Your task to perform on an android device: set the timer Image 0: 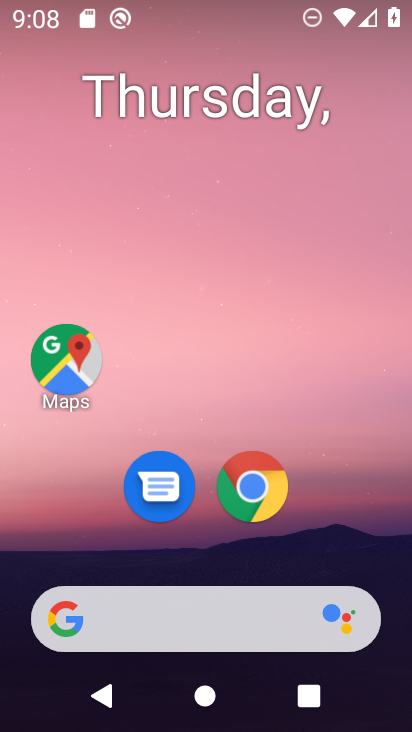
Step 0: drag from (228, 386) to (277, 6)
Your task to perform on an android device: set the timer Image 1: 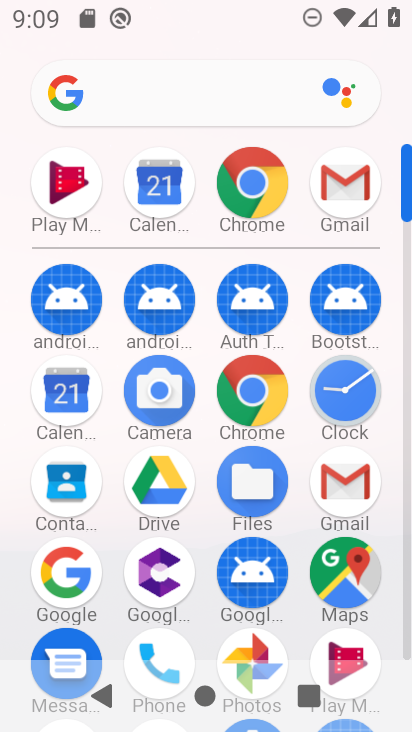
Step 1: click (336, 385)
Your task to perform on an android device: set the timer Image 2: 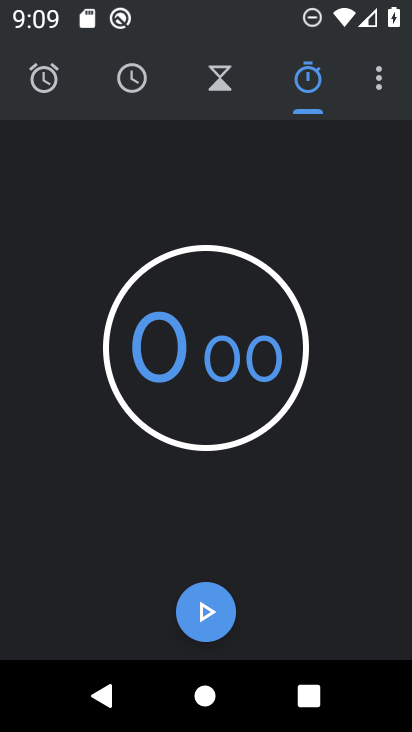
Step 2: click (3, 714)
Your task to perform on an android device: set the timer Image 3: 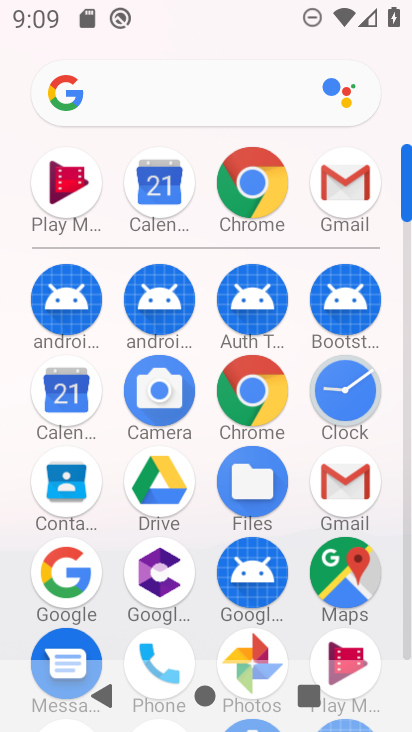
Step 3: click (344, 397)
Your task to perform on an android device: set the timer Image 4: 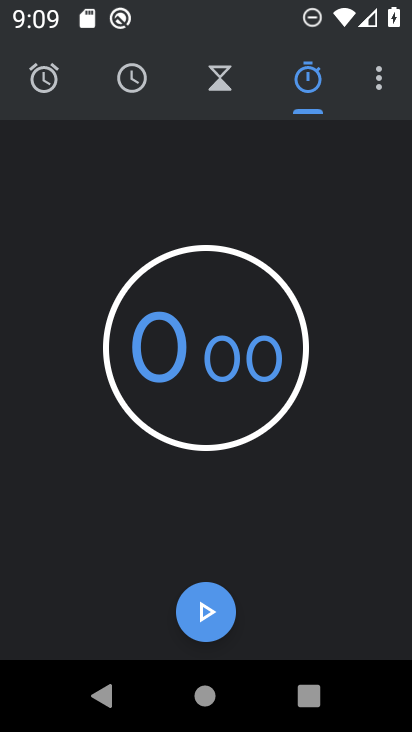
Step 4: click (207, 361)
Your task to perform on an android device: set the timer Image 5: 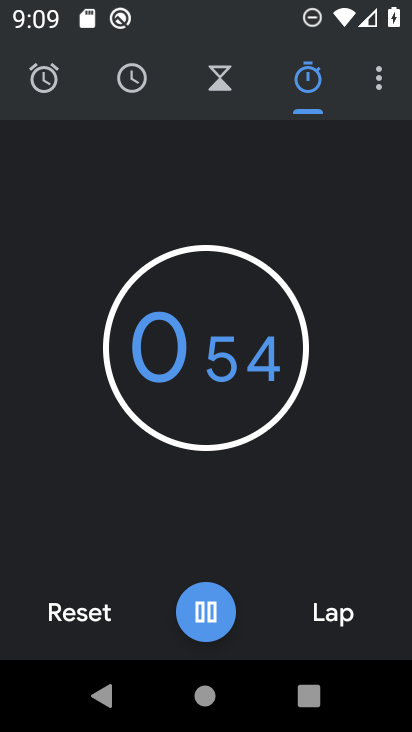
Step 5: click (207, 361)
Your task to perform on an android device: set the timer Image 6: 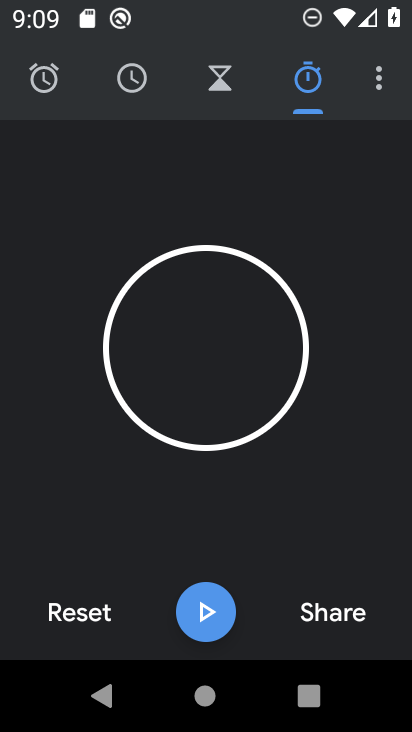
Step 6: click (217, 79)
Your task to perform on an android device: set the timer Image 7: 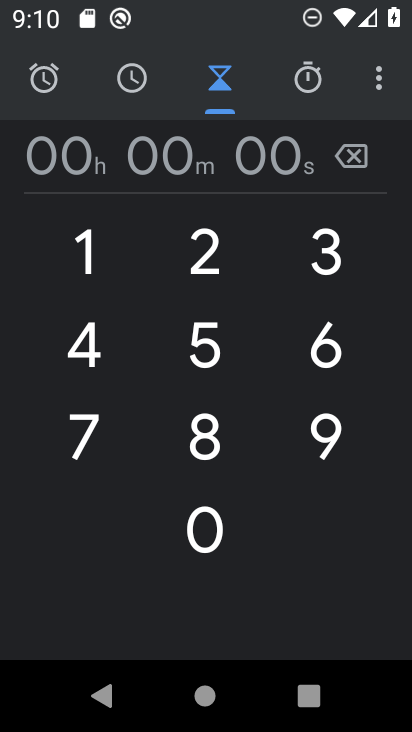
Step 7: click (207, 335)
Your task to perform on an android device: set the timer Image 8: 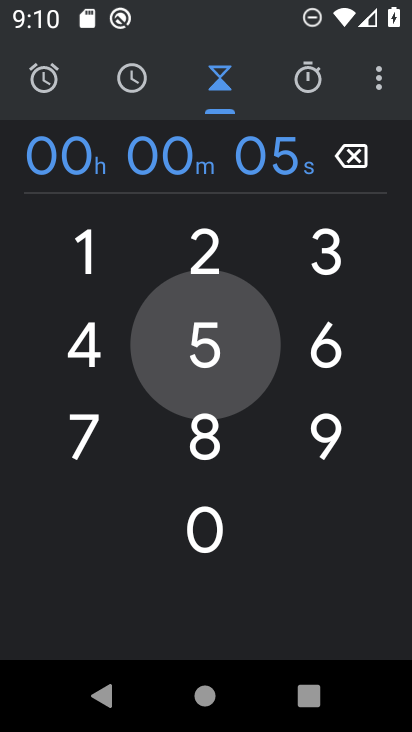
Step 8: click (319, 332)
Your task to perform on an android device: set the timer Image 9: 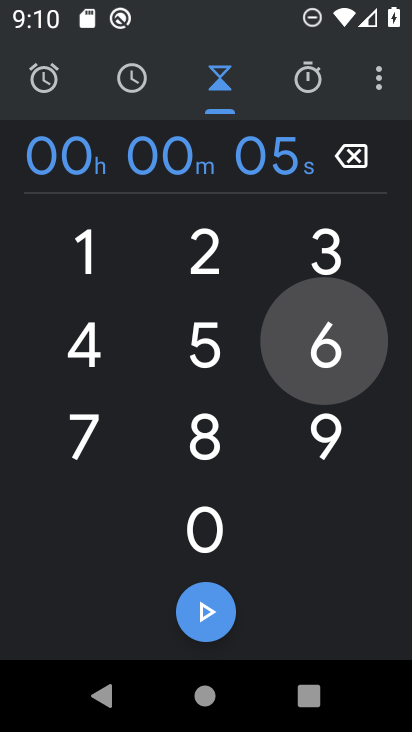
Step 9: click (342, 246)
Your task to perform on an android device: set the timer Image 10: 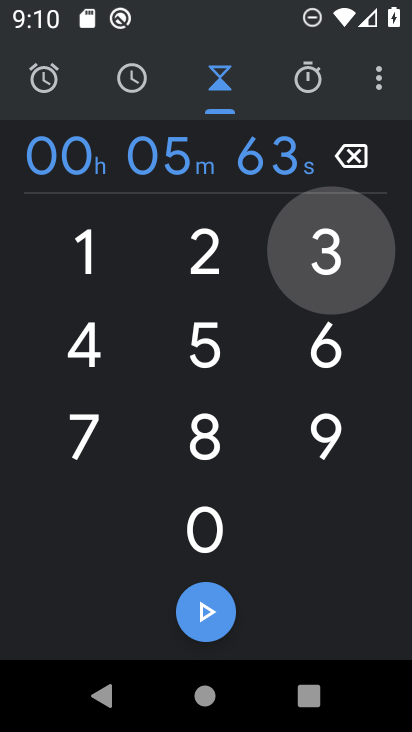
Step 10: click (216, 231)
Your task to perform on an android device: set the timer Image 11: 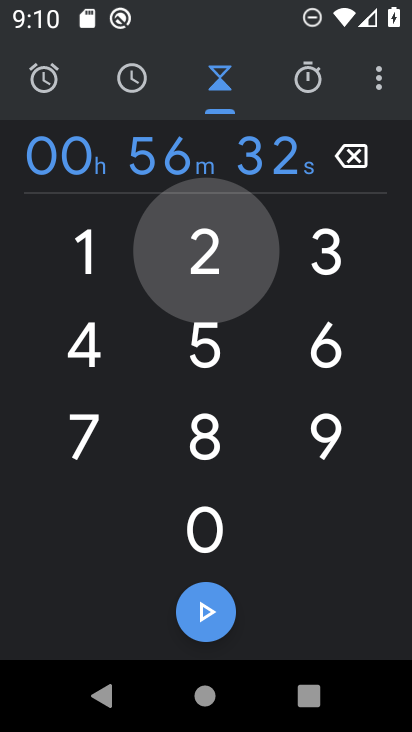
Step 11: click (57, 332)
Your task to perform on an android device: set the timer Image 12: 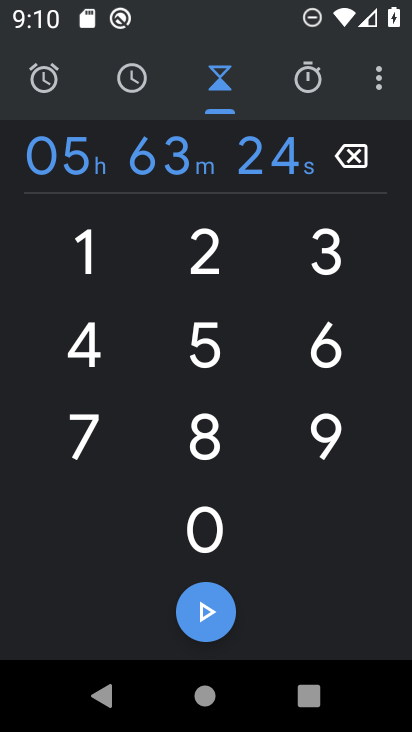
Step 12: task complete